Your task to perform on an android device: move a message to another label in the gmail app Image 0: 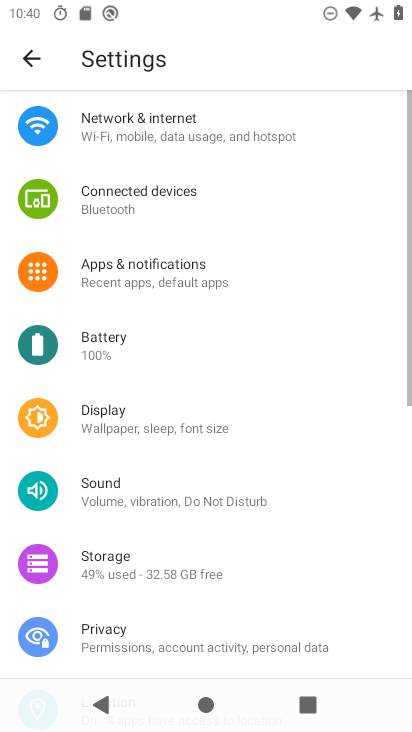
Step 0: press home button
Your task to perform on an android device: move a message to another label in the gmail app Image 1: 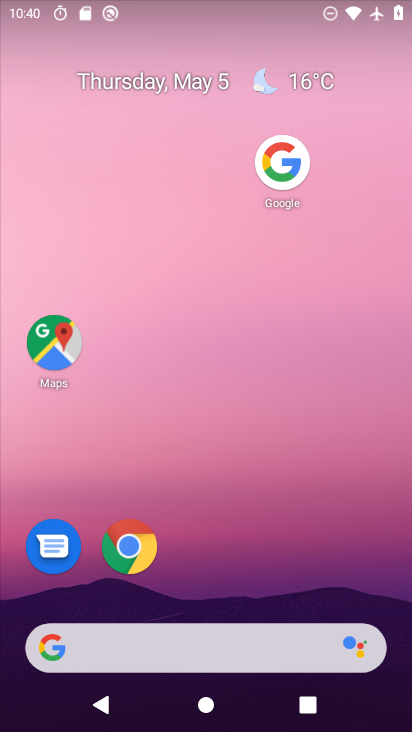
Step 1: drag from (127, 640) to (279, 24)
Your task to perform on an android device: move a message to another label in the gmail app Image 2: 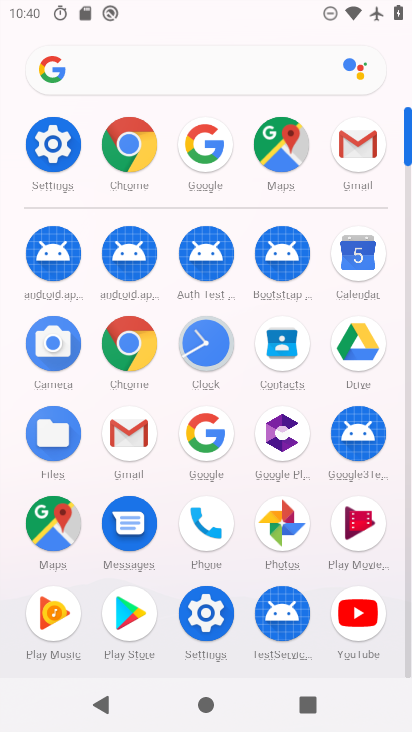
Step 2: click (352, 150)
Your task to perform on an android device: move a message to another label in the gmail app Image 3: 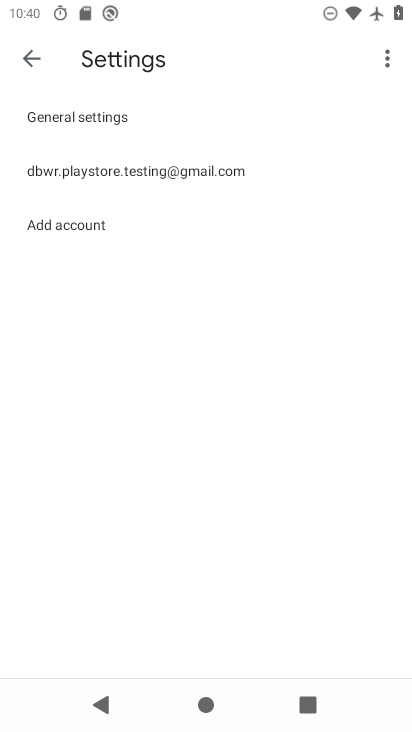
Step 3: click (185, 177)
Your task to perform on an android device: move a message to another label in the gmail app Image 4: 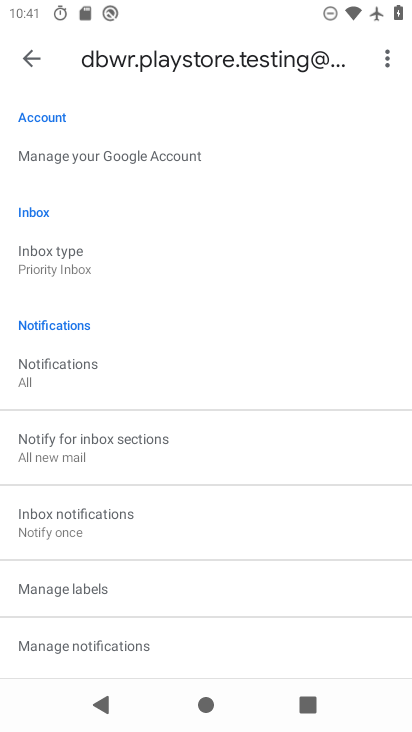
Step 4: click (34, 58)
Your task to perform on an android device: move a message to another label in the gmail app Image 5: 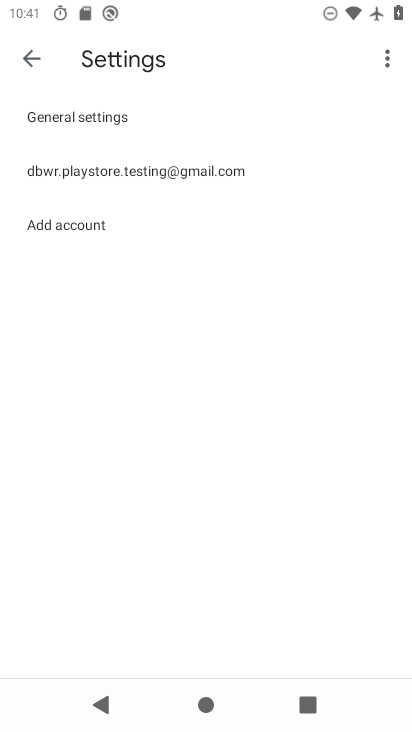
Step 5: click (39, 58)
Your task to perform on an android device: move a message to another label in the gmail app Image 6: 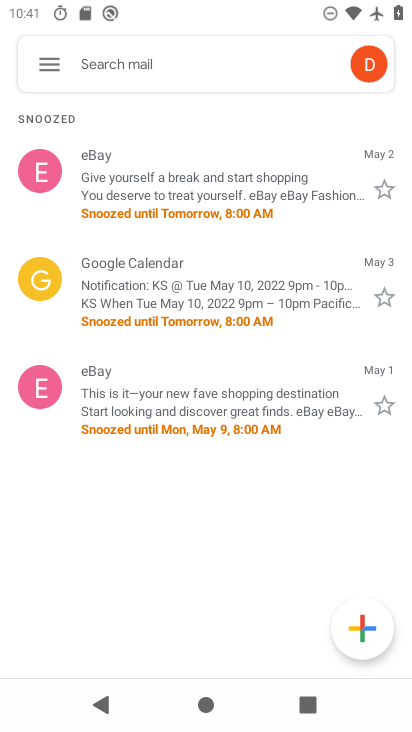
Step 6: click (223, 179)
Your task to perform on an android device: move a message to another label in the gmail app Image 7: 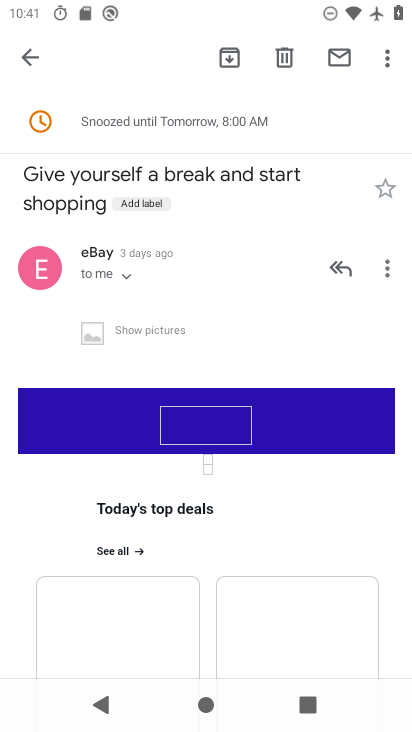
Step 7: click (154, 204)
Your task to perform on an android device: move a message to another label in the gmail app Image 8: 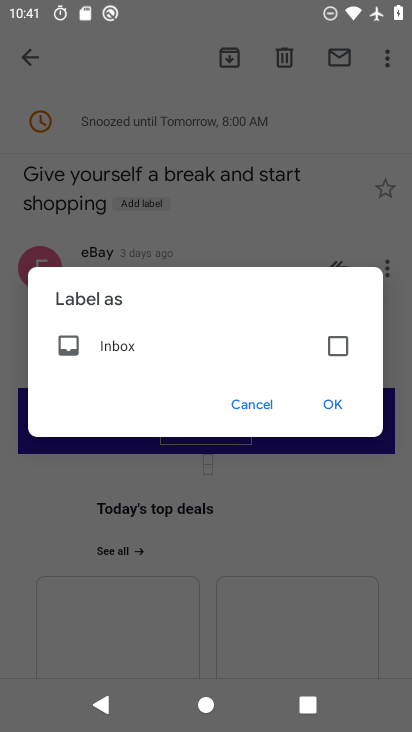
Step 8: click (338, 348)
Your task to perform on an android device: move a message to another label in the gmail app Image 9: 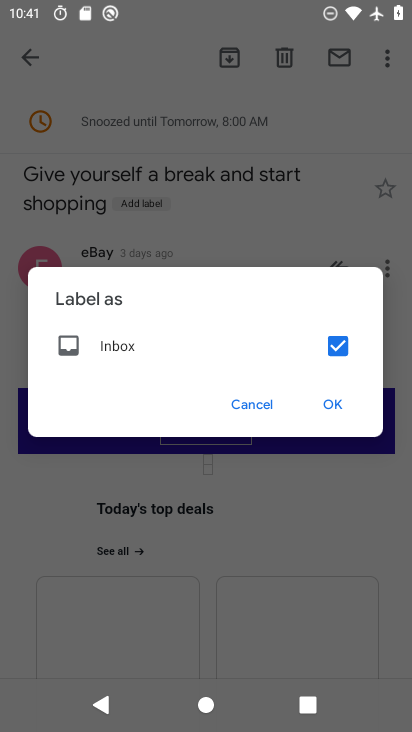
Step 9: click (339, 406)
Your task to perform on an android device: move a message to another label in the gmail app Image 10: 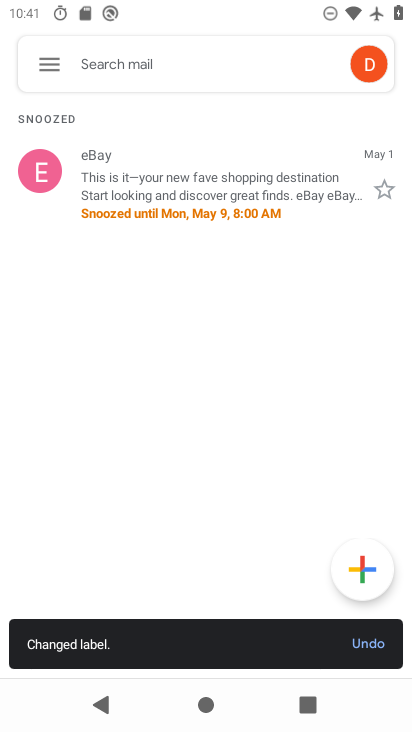
Step 10: task complete